Your task to perform on an android device: toggle location history Image 0: 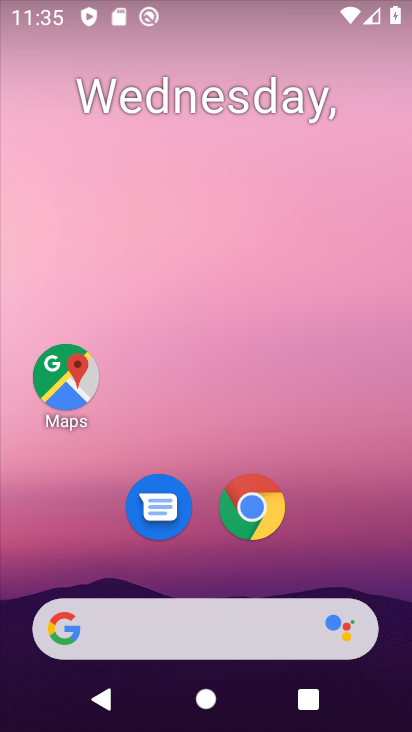
Step 0: drag from (346, 527) to (408, 3)
Your task to perform on an android device: toggle location history Image 1: 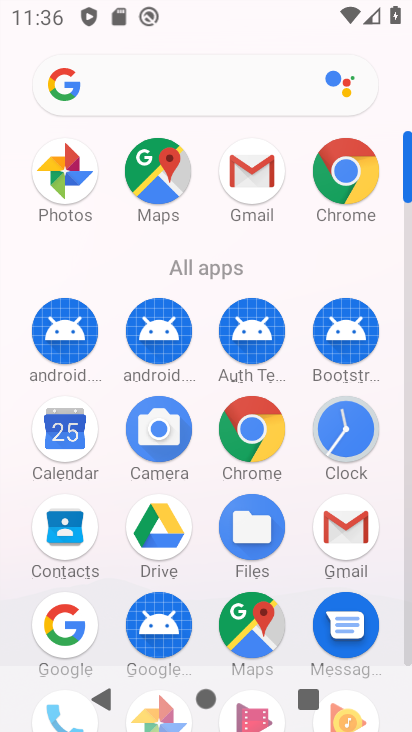
Step 1: click (408, 608)
Your task to perform on an android device: toggle location history Image 2: 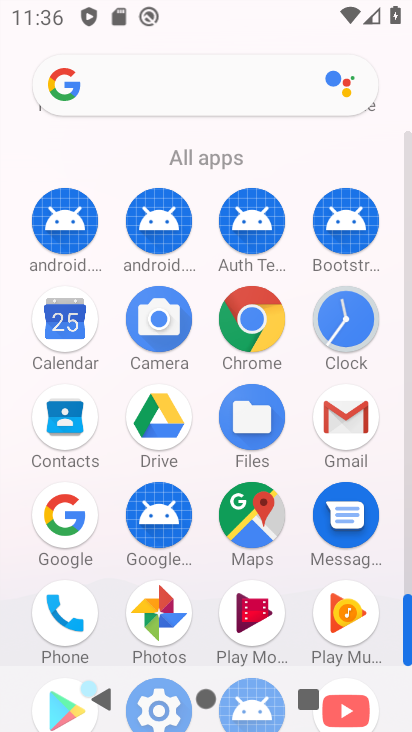
Step 2: drag from (407, 645) to (410, 710)
Your task to perform on an android device: toggle location history Image 3: 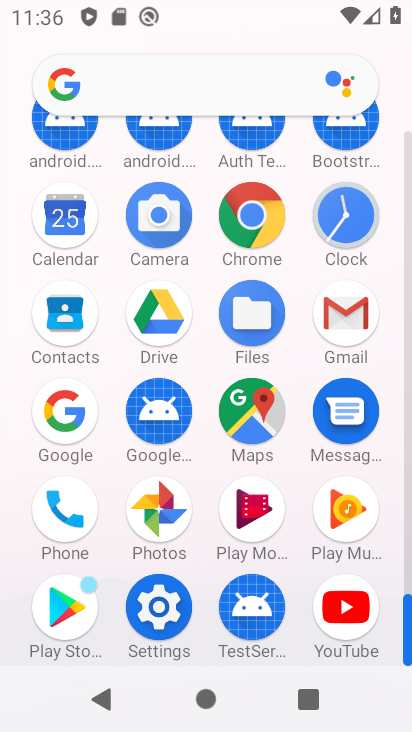
Step 3: click (137, 635)
Your task to perform on an android device: toggle location history Image 4: 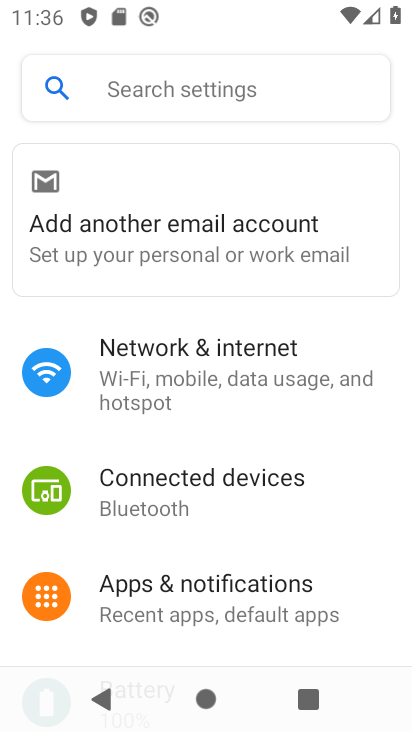
Step 4: drag from (153, 567) to (198, 354)
Your task to perform on an android device: toggle location history Image 5: 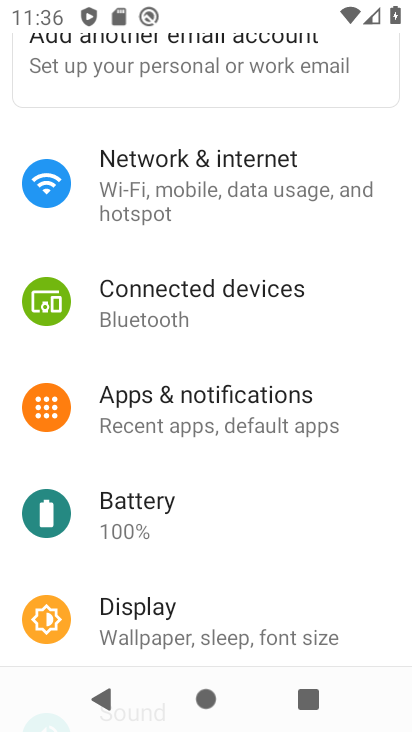
Step 5: drag from (261, 572) to (313, 244)
Your task to perform on an android device: toggle location history Image 6: 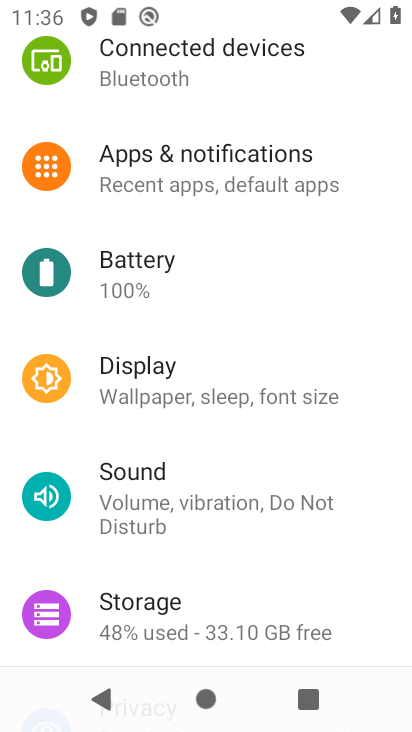
Step 6: drag from (201, 588) to (224, 235)
Your task to perform on an android device: toggle location history Image 7: 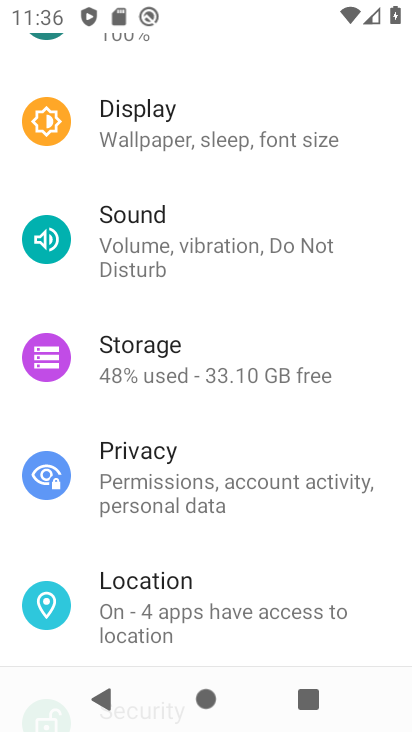
Step 7: drag from (225, 583) to (284, 238)
Your task to perform on an android device: toggle location history Image 8: 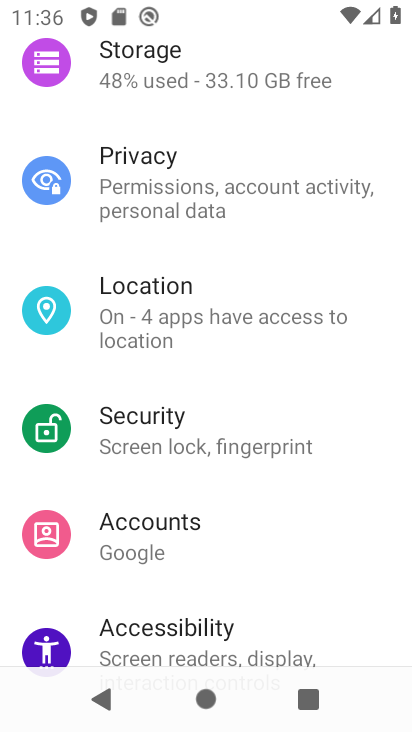
Step 8: click (238, 306)
Your task to perform on an android device: toggle location history Image 9: 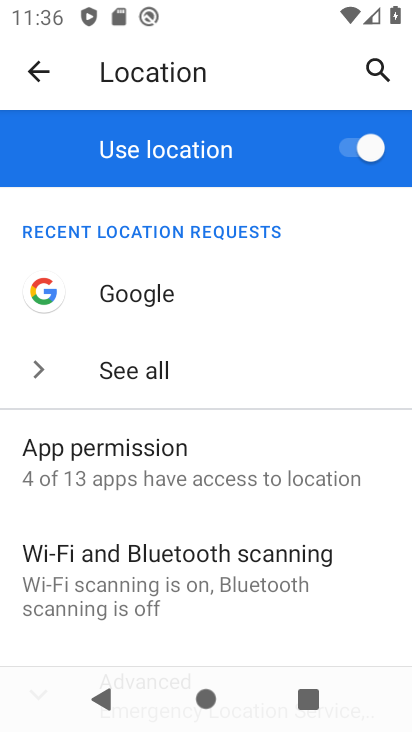
Step 9: drag from (178, 531) to (244, 192)
Your task to perform on an android device: toggle location history Image 10: 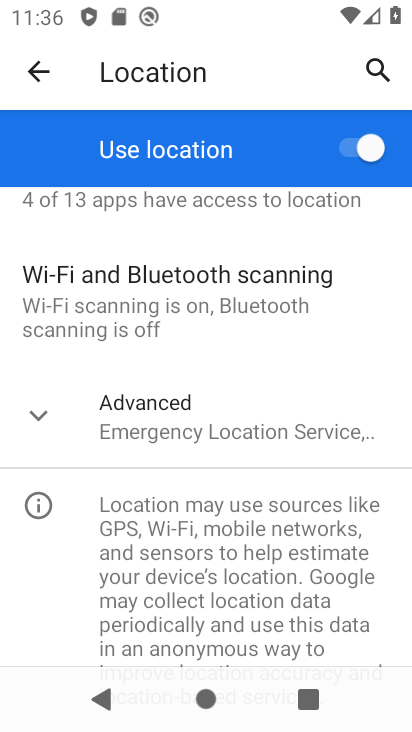
Step 10: click (242, 438)
Your task to perform on an android device: toggle location history Image 11: 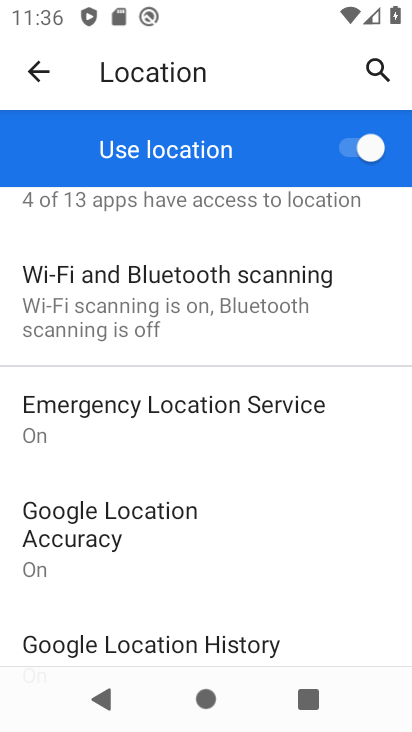
Step 11: click (189, 617)
Your task to perform on an android device: toggle location history Image 12: 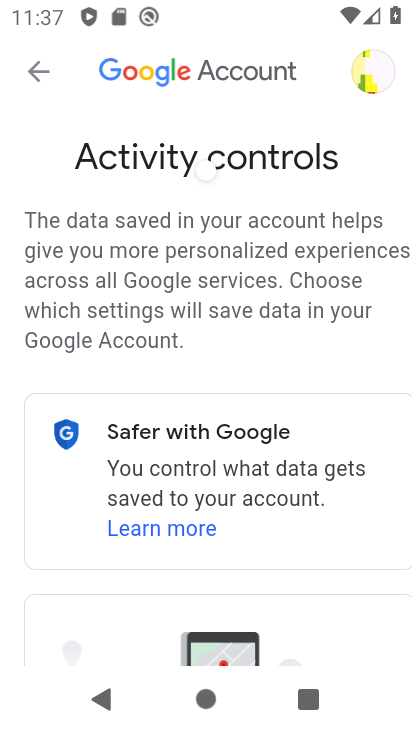
Step 12: drag from (232, 606) to (261, 263)
Your task to perform on an android device: toggle location history Image 13: 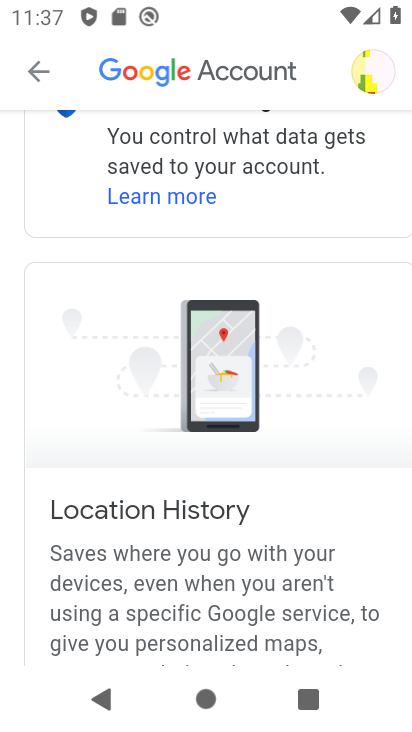
Step 13: drag from (293, 563) to (325, 313)
Your task to perform on an android device: toggle location history Image 14: 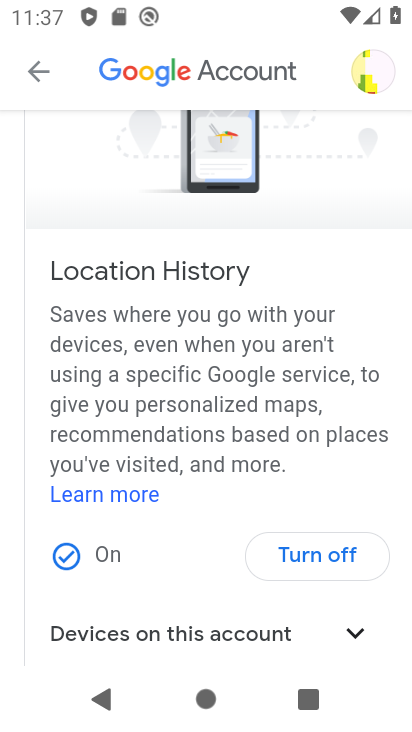
Step 14: click (324, 552)
Your task to perform on an android device: toggle location history Image 15: 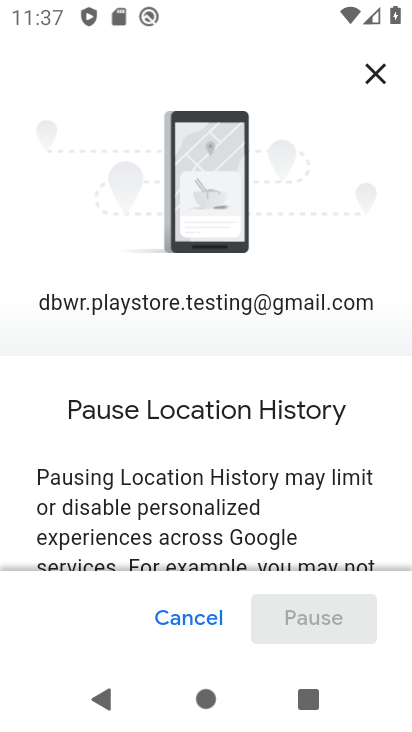
Step 15: task complete